Your task to perform on an android device: Open Google Chrome Image 0: 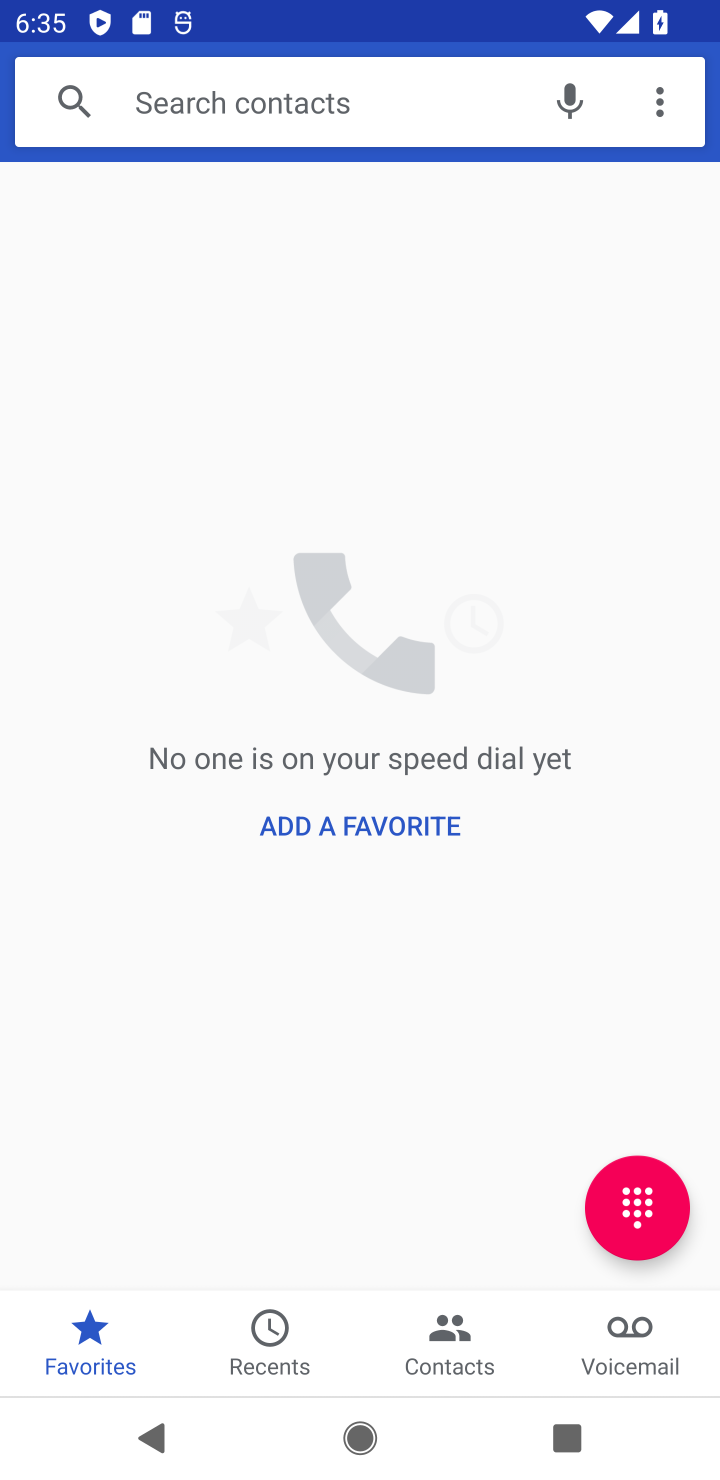
Step 0: press back button
Your task to perform on an android device: Open Google Chrome Image 1: 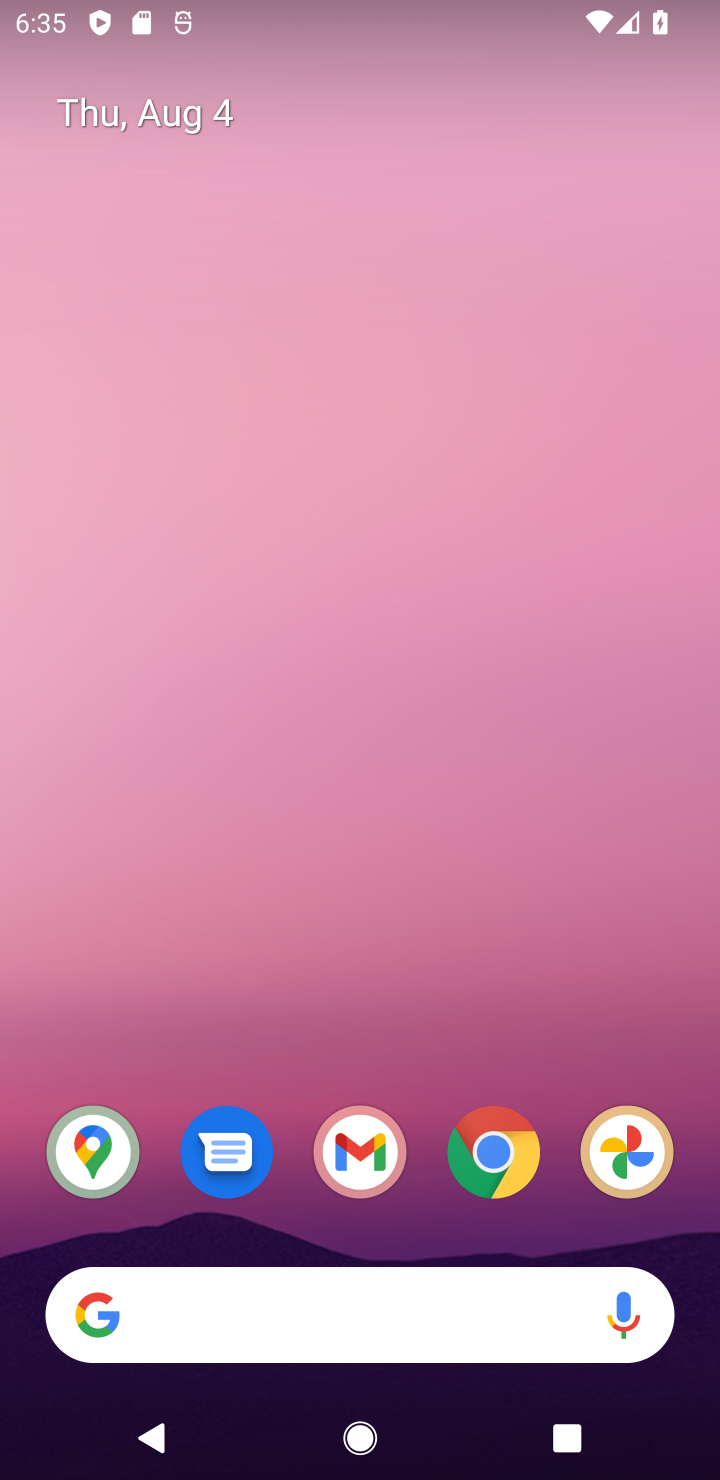
Step 1: click (503, 1147)
Your task to perform on an android device: Open Google Chrome Image 2: 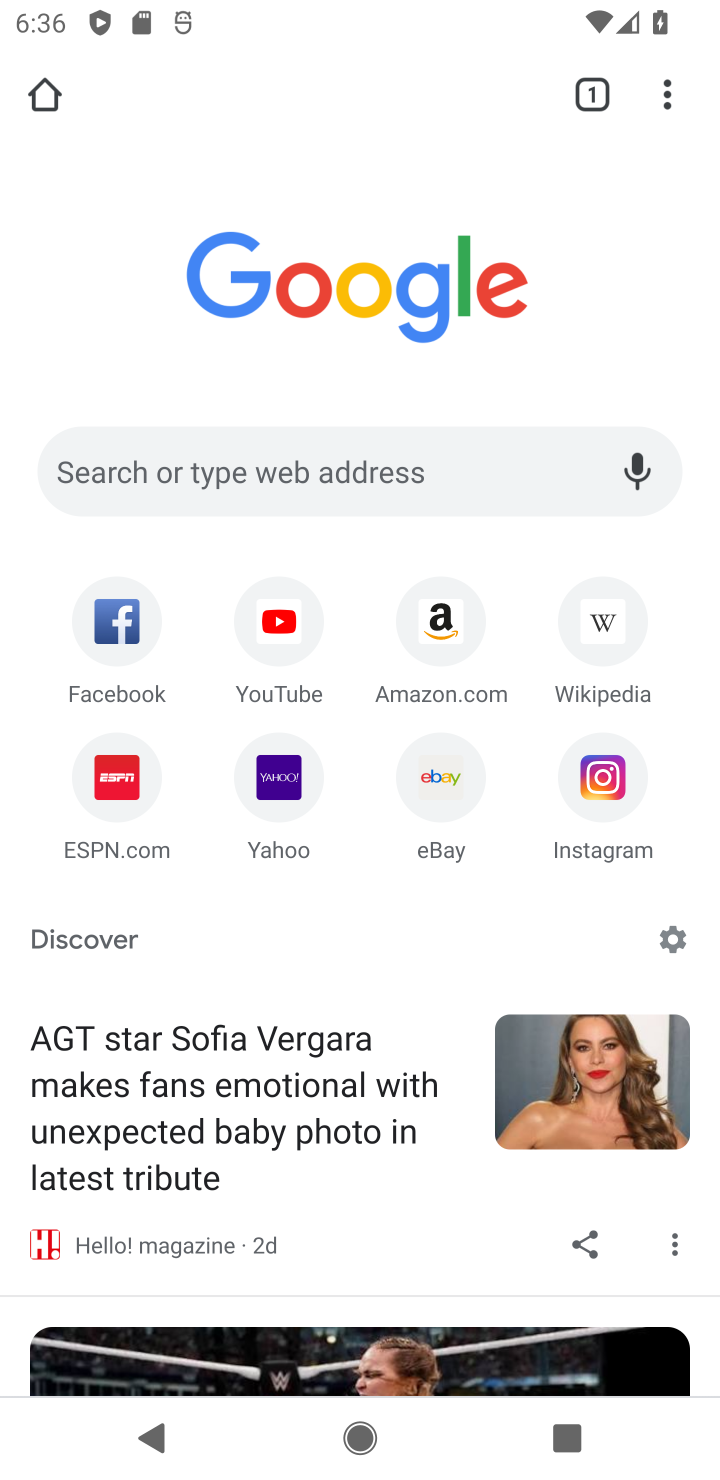
Step 2: task complete